Your task to perform on an android device: Open accessibility settings Image 0: 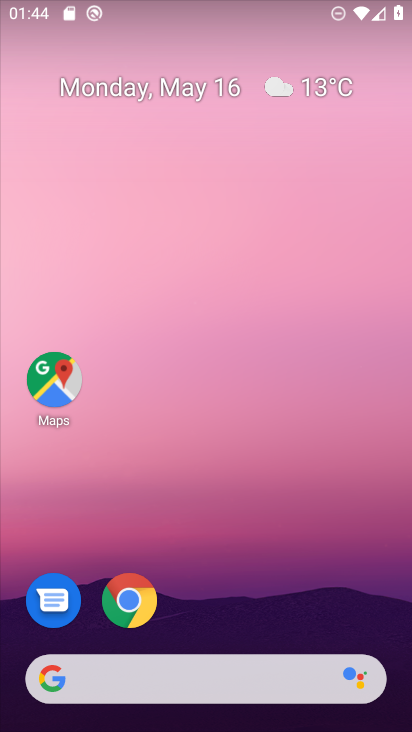
Step 0: drag from (191, 39) to (184, 648)
Your task to perform on an android device: Open accessibility settings Image 1: 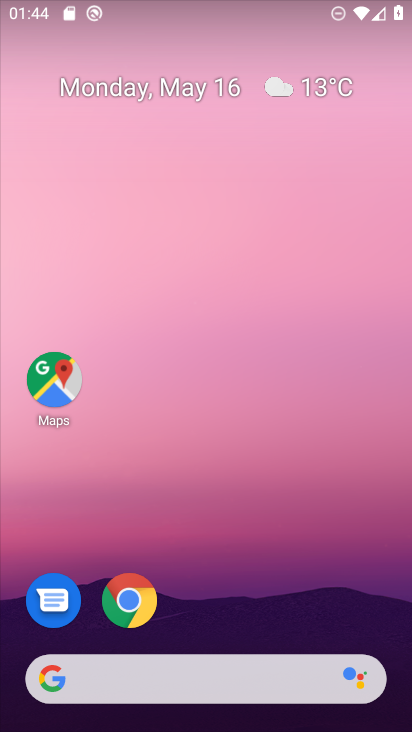
Step 1: drag from (233, 3) to (236, 622)
Your task to perform on an android device: Open accessibility settings Image 2: 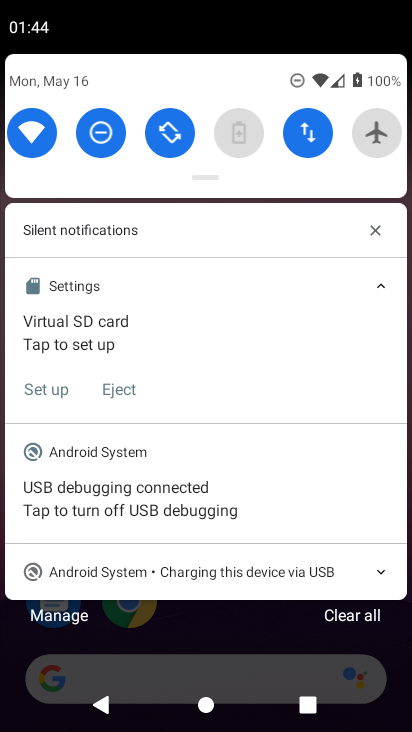
Step 2: press home button
Your task to perform on an android device: Open accessibility settings Image 3: 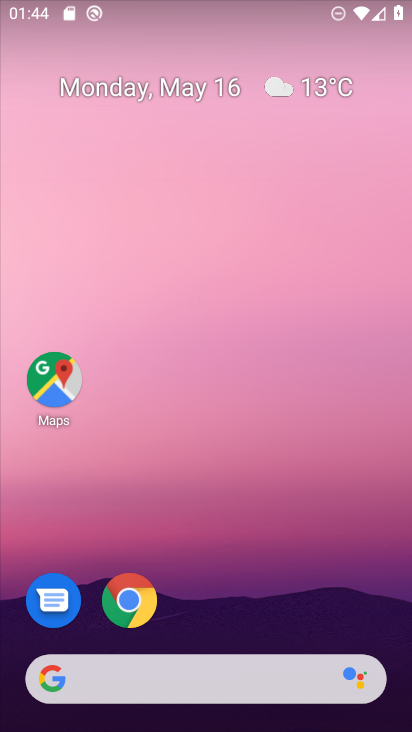
Step 3: drag from (231, 635) to (232, 56)
Your task to perform on an android device: Open accessibility settings Image 4: 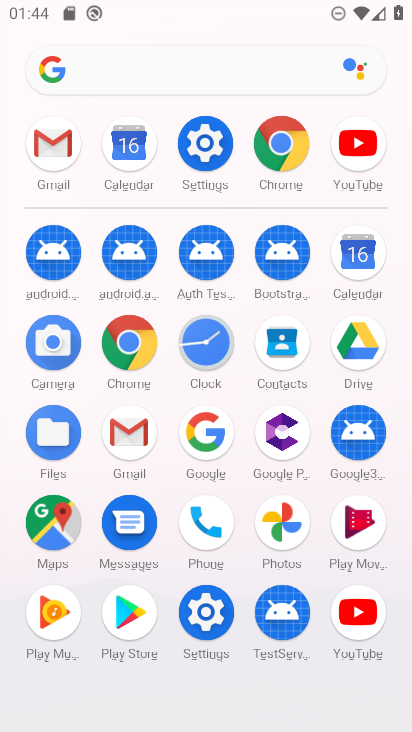
Step 4: click (201, 135)
Your task to perform on an android device: Open accessibility settings Image 5: 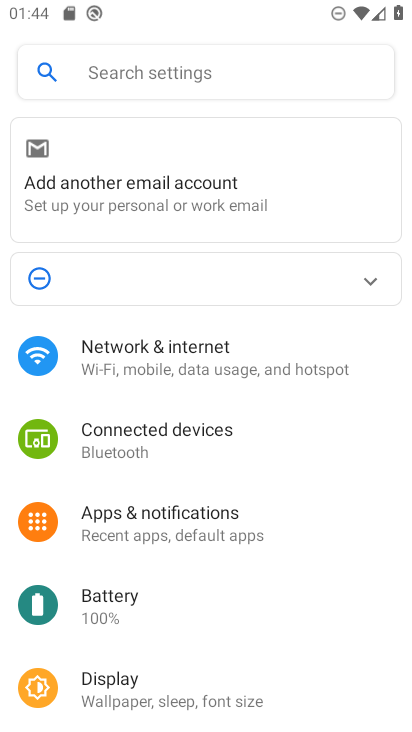
Step 5: drag from (189, 679) to (233, 157)
Your task to perform on an android device: Open accessibility settings Image 6: 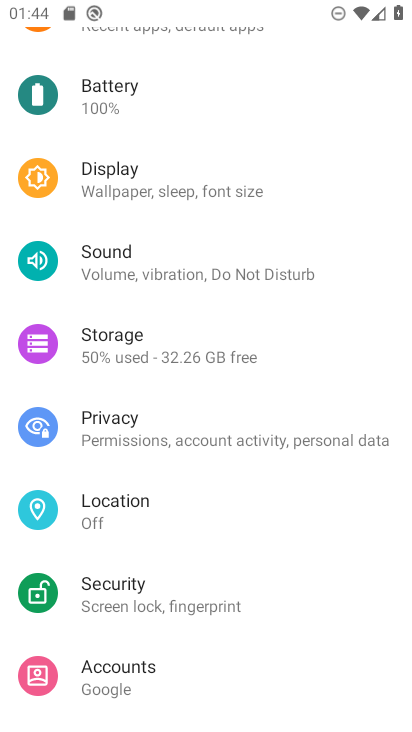
Step 6: drag from (180, 686) to (185, 184)
Your task to perform on an android device: Open accessibility settings Image 7: 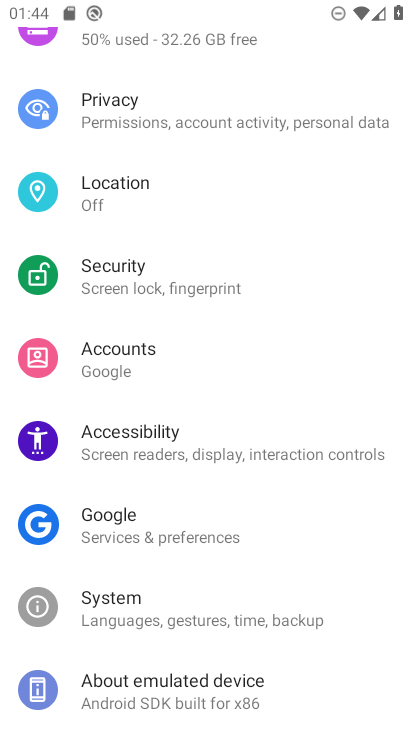
Step 7: click (187, 431)
Your task to perform on an android device: Open accessibility settings Image 8: 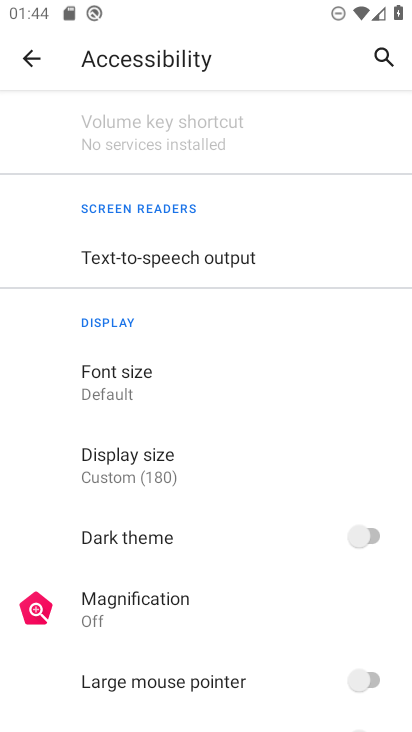
Step 8: task complete